Your task to perform on an android device: turn on javascript in the chrome app Image 0: 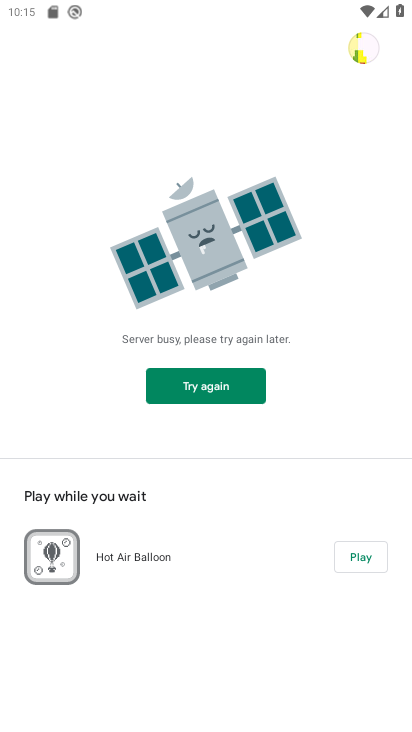
Step 0: press back button
Your task to perform on an android device: turn on javascript in the chrome app Image 1: 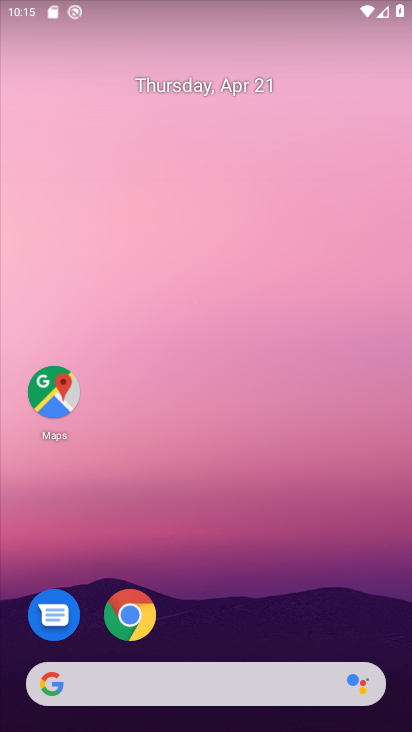
Step 1: click (142, 632)
Your task to perform on an android device: turn on javascript in the chrome app Image 2: 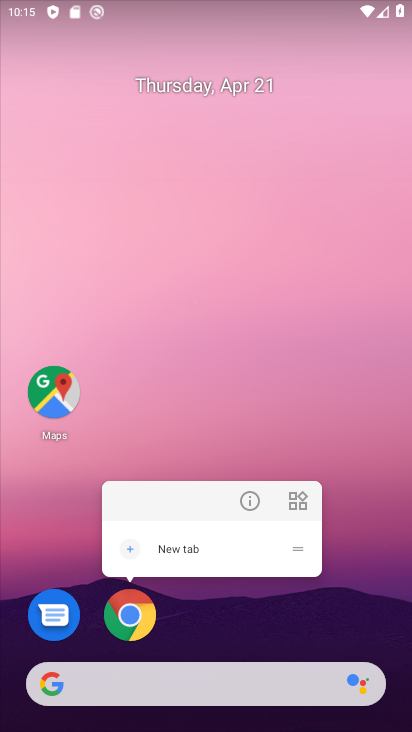
Step 2: drag from (202, 671) to (291, 173)
Your task to perform on an android device: turn on javascript in the chrome app Image 3: 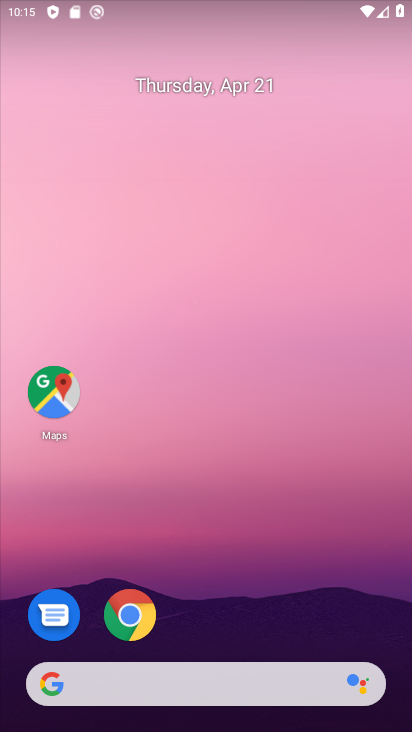
Step 3: drag from (261, 572) to (350, 182)
Your task to perform on an android device: turn on javascript in the chrome app Image 4: 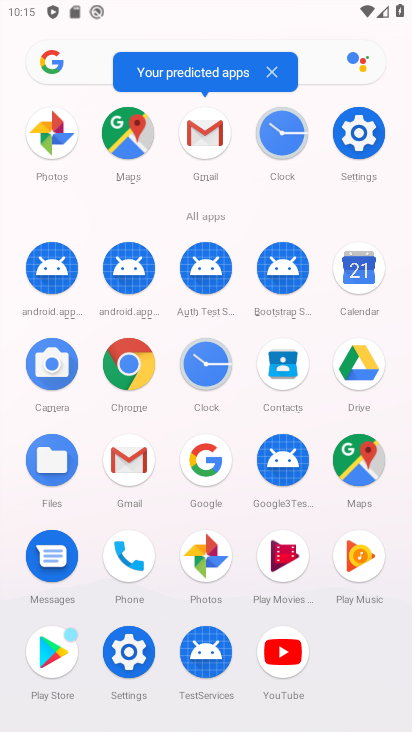
Step 4: click (124, 365)
Your task to perform on an android device: turn on javascript in the chrome app Image 5: 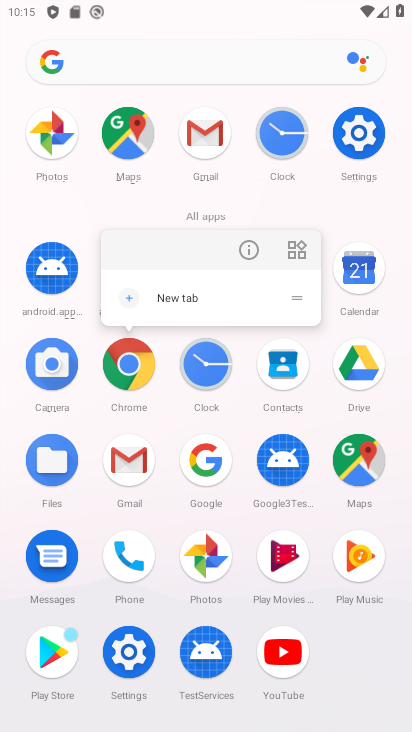
Step 5: click (124, 363)
Your task to perform on an android device: turn on javascript in the chrome app Image 6: 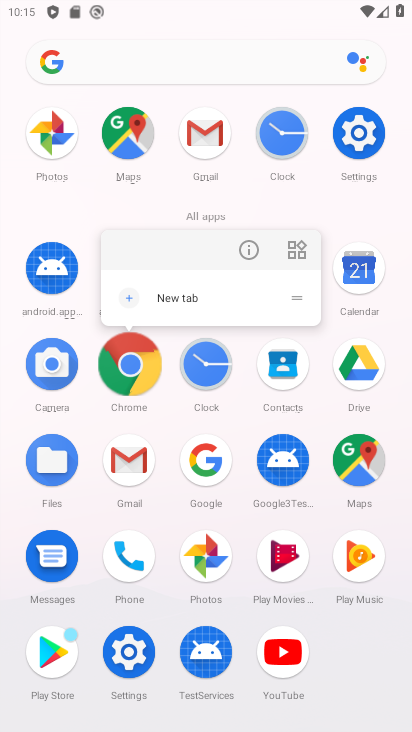
Step 6: click (118, 357)
Your task to perform on an android device: turn on javascript in the chrome app Image 7: 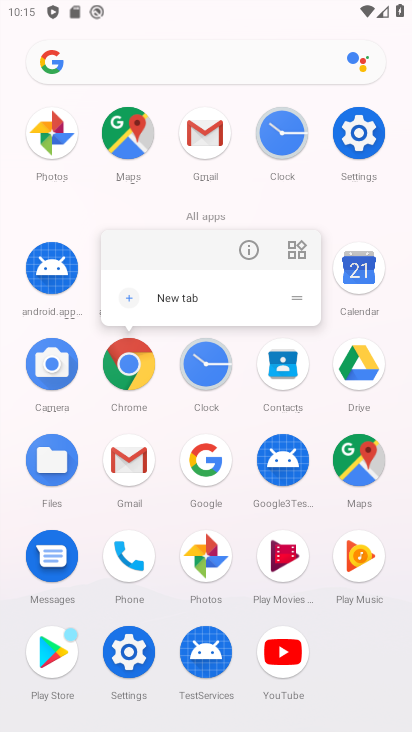
Step 7: click (135, 380)
Your task to perform on an android device: turn on javascript in the chrome app Image 8: 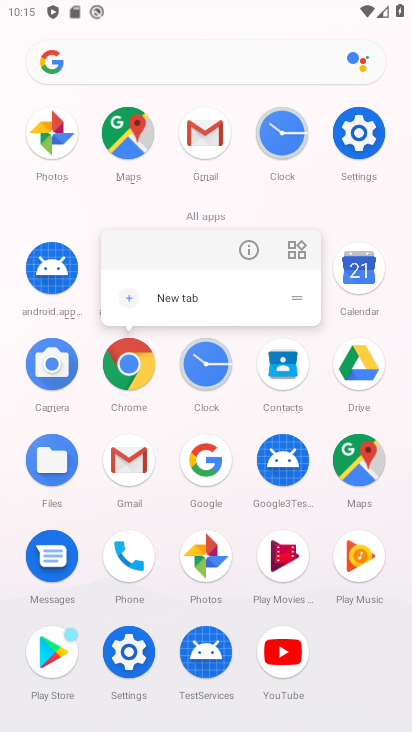
Step 8: click (133, 379)
Your task to perform on an android device: turn on javascript in the chrome app Image 9: 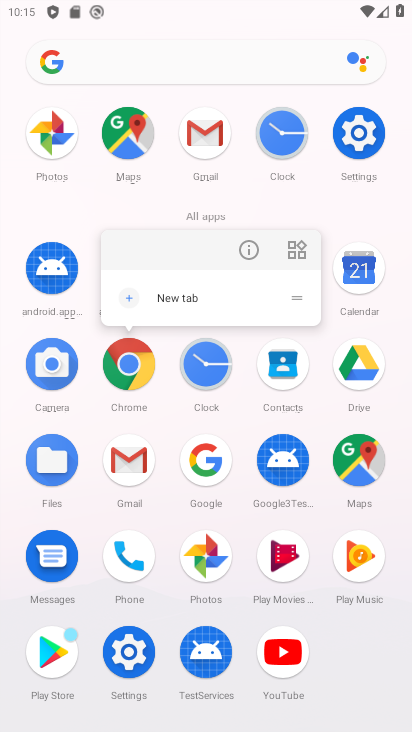
Step 9: click (119, 365)
Your task to perform on an android device: turn on javascript in the chrome app Image 10: 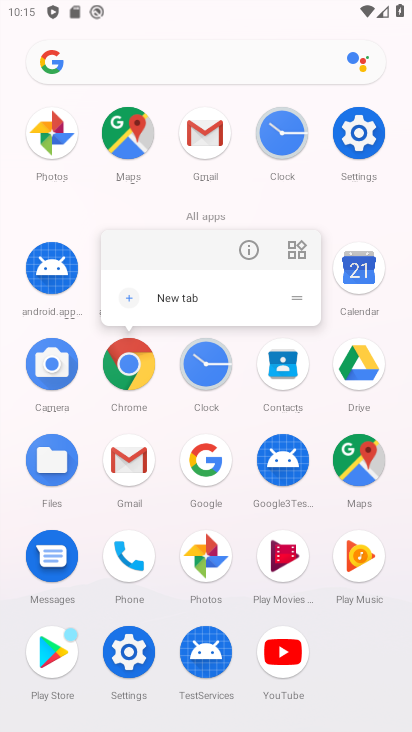
Step 10: click (133, 365)
Your task to perform on an android device: turn on javascript in the chrome app Image 11: 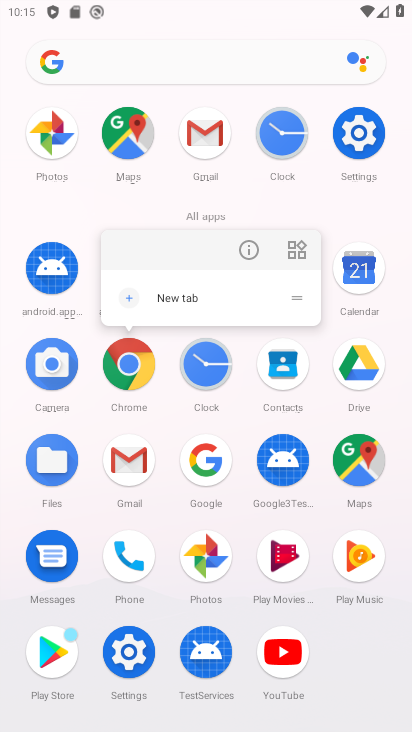
Step 11: click (149, 366)
Your task to perform on an android device: turn on javascript in the chrome app Image 12: 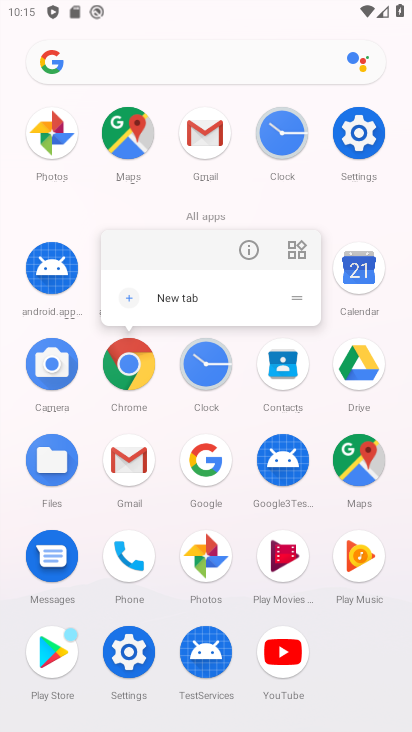
Step 12: click (148, 366)
Your task to perform on an android device: turn on javascript in the chrome app Image 13: 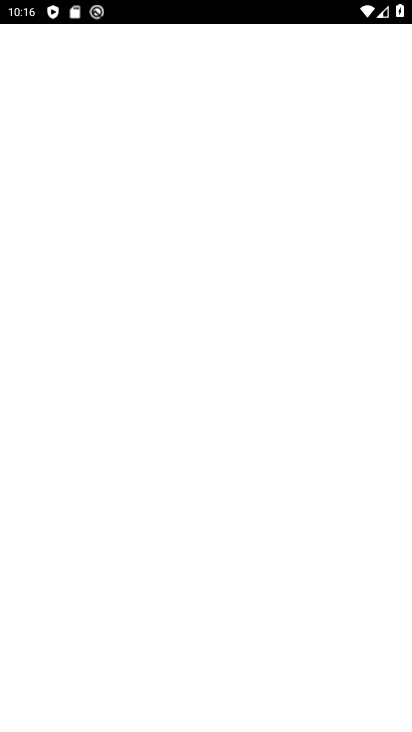
Step 13: click (140, 374)
Your task to perform on an android device: turn on javascript in the chrome app Image 14: 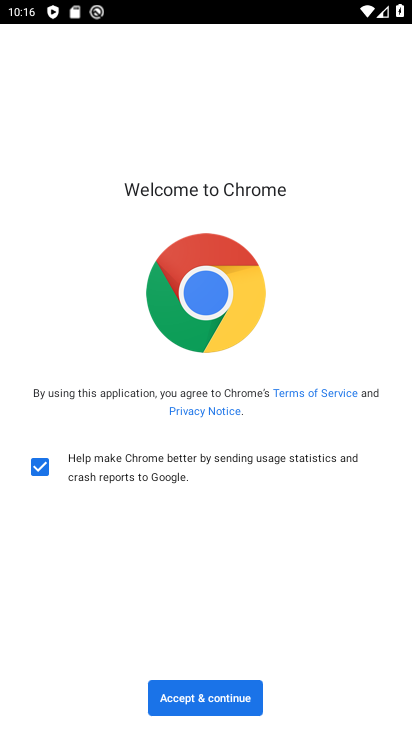
Step 14: click (195, 699)
Your task to perform on an android device: turn on javascript in the chrome app Image 15: 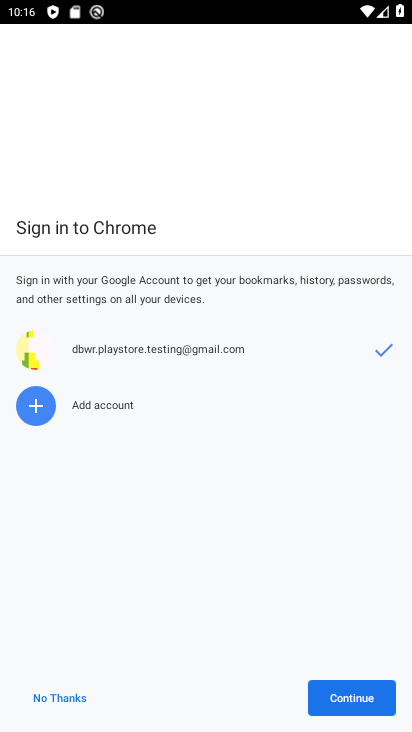
Step 15: click (331, 702)
Your task to perform on an android device: turn on javascript in the chrome app Image 16: 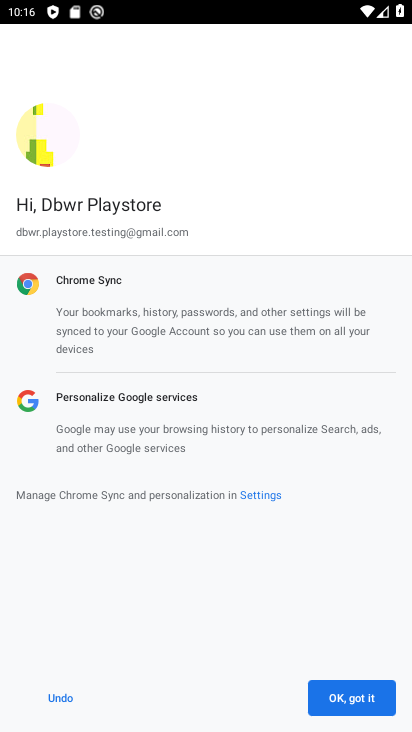
Step 16: click (350, 708)
Your task to perform on an android device: turn on javascript in the chrome app Image 17: 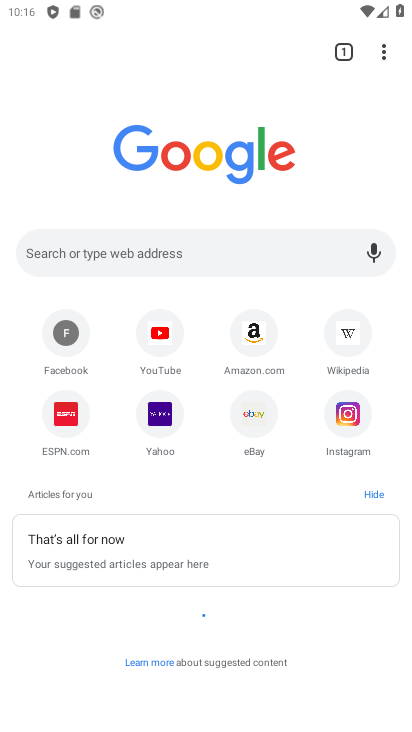
Step 17: click (380, 60)
Your task to perform on an android device: turn on javascript in the chrome app Image 18: 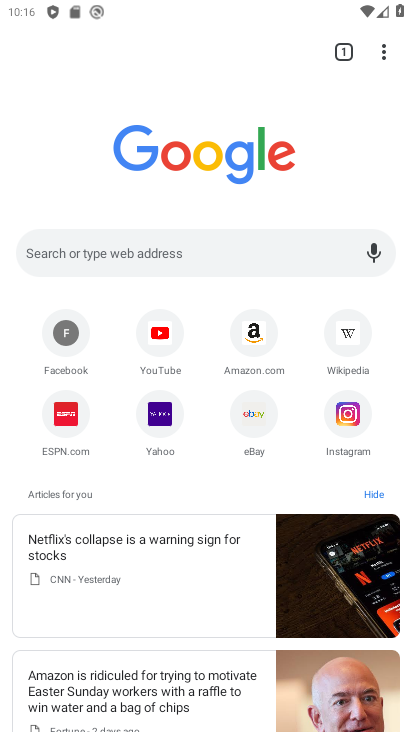
Step 18: drag from (380, 60) to (297, 417)
Your task to perform on an android device: turn on javascript in the chrome app Image 19: 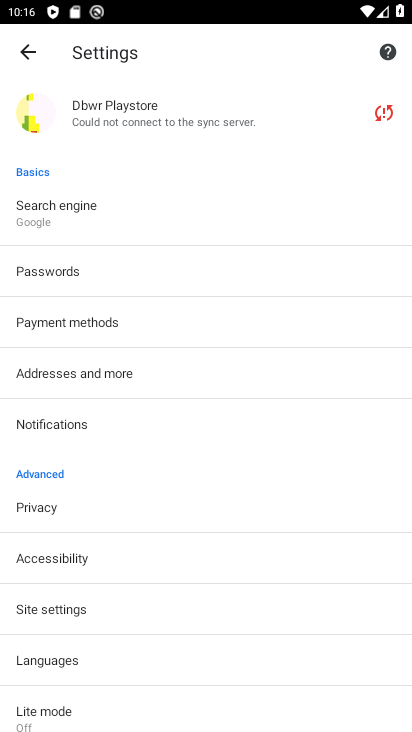
Step 19: click (108, 619)
Your task to perform on an android device: turn on javascript in the chrome app Image 20: 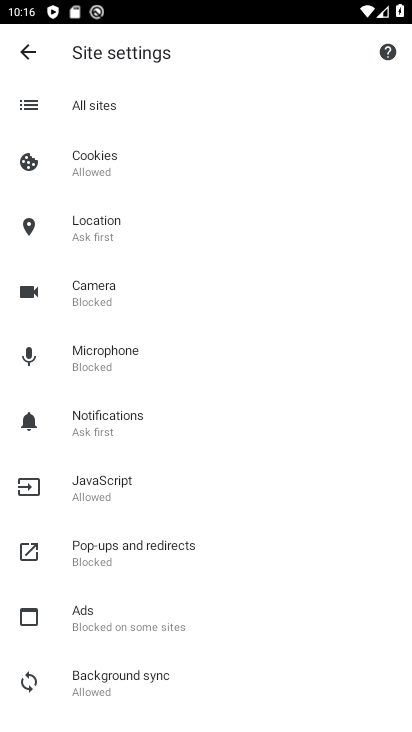
Step 20: click (198, 498)
Your task to perform on an android device: turn on javascript in the chrome app Image 21: 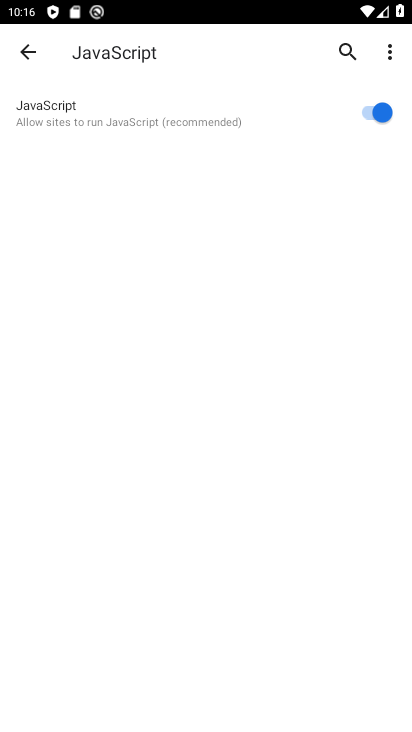
Step 21: task complete